Your task to perform on an android device: Open Google Image 0: 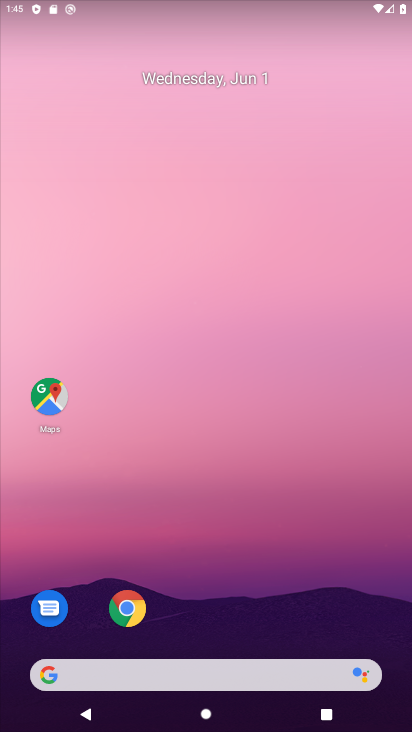
Step 0: drag from (331, 609) to (59, 28)
Your task to perform on an android device: Open Google Image 1: 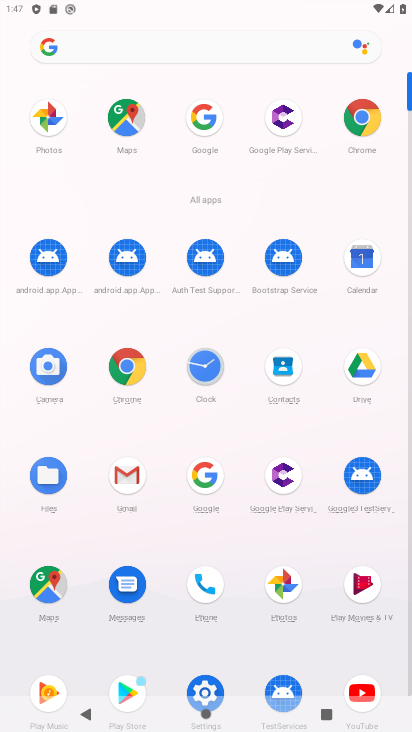
Step 1: click (207, 471)
Your task to perform on an android device: Open Google Image 2: 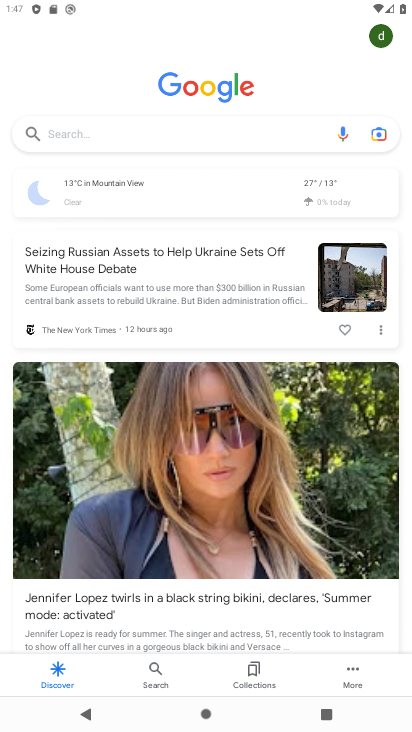
Step 2: task complete